Your task to perform on an android device: turn off sleep mode Image 0: 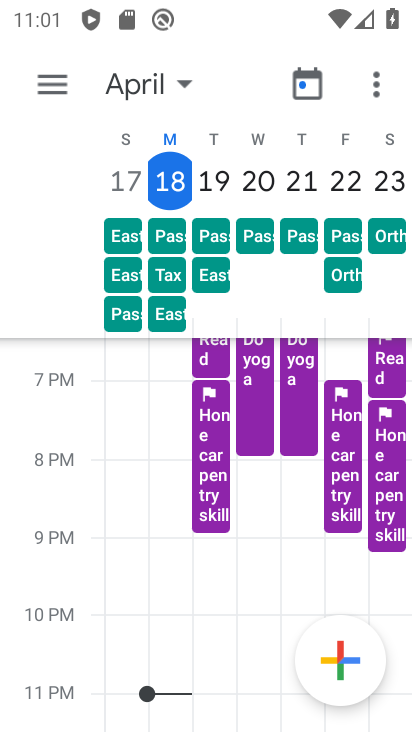
Step 0: press back button
Your task to perform on an android device: turn off sleep mode Image 1: 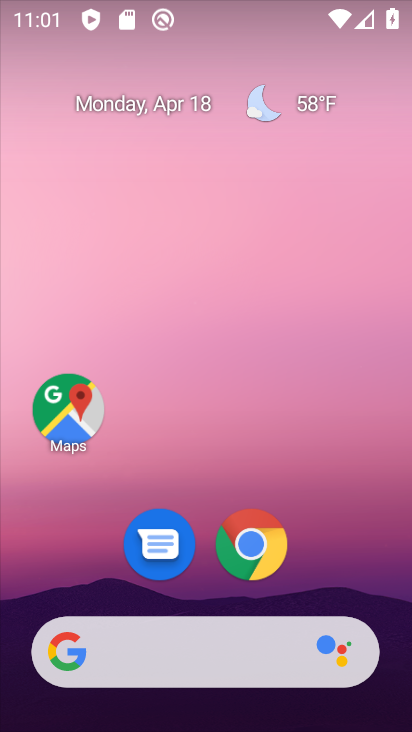
Step 1: drag from (209, 491) to (289, 87)
Your task to perform on an android device: turn off sleep mode Image 2: 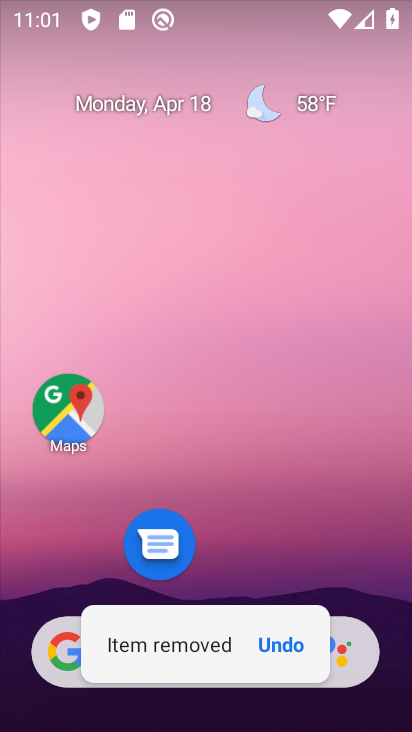
Step 2: drag from (325, 534) to (318, 58)
Your task to perform on an android device: turn off sleep mode Image 3: 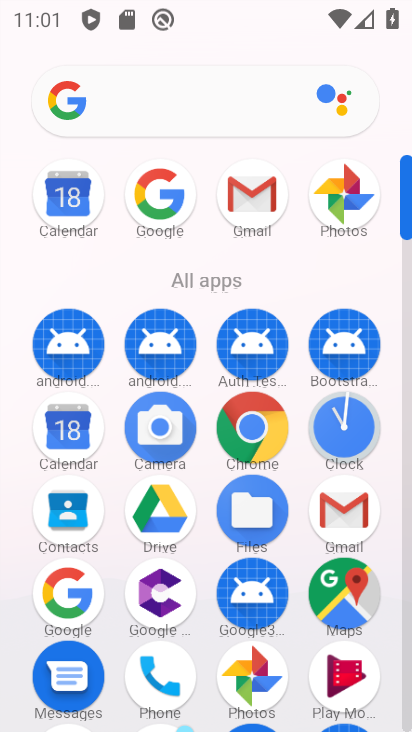
Step 3: drag from (304, 465) to (291, 273)
Your task to perform on an android device: turn off sleep mode Image 4: 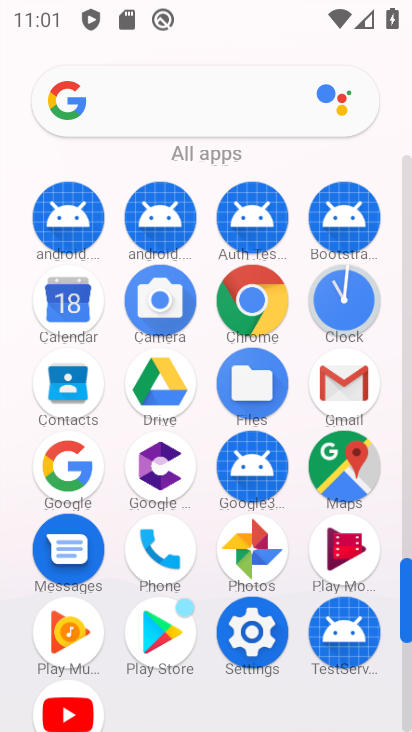
Step 4: click (252, 636)
Your task to perform on an android device: turn off sleep mode Image 5: 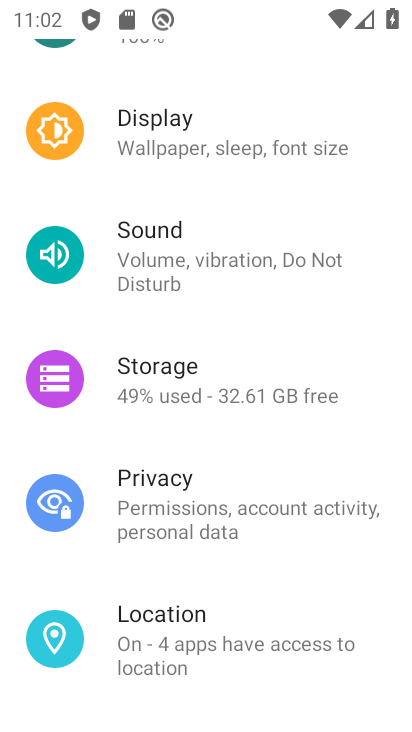
Step 5: click (245, 158)
Your task to perform on an android device: turn off sleep mode Image 6: 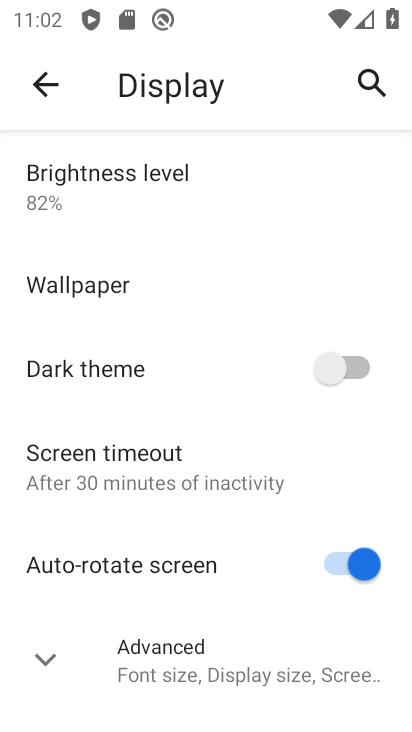
Step 6: drag from (169, 416) to (176, 308)
Your task to perform on an android device: turn off sleep mode Image 7: 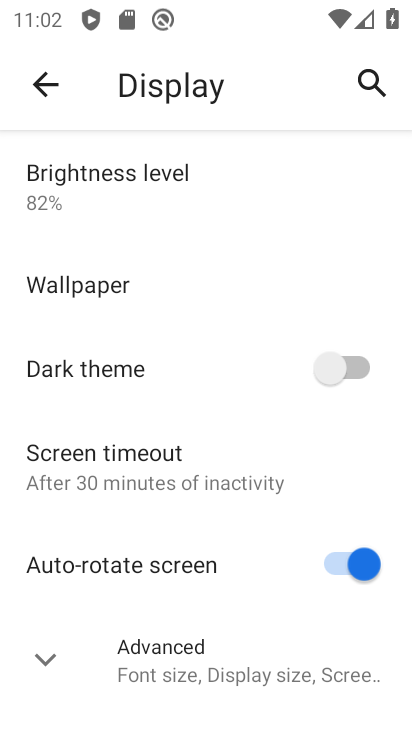
Step 7: drag from (247, 598) to (275, 419)
Your task to perform on an android device: turn off sleep mode Image 8: 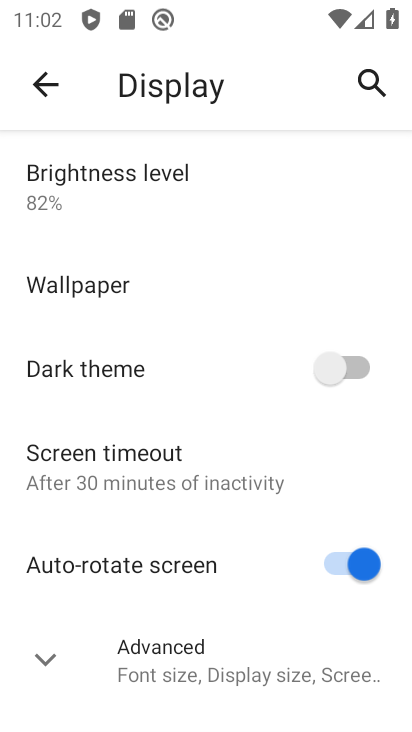
Step 8: click (231, 657)
Your task to perform on an android device: turn off sleep mode Image 9: 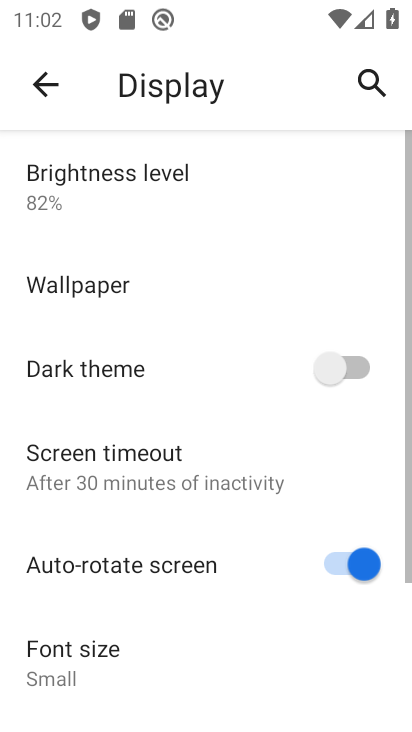
Step 9: task complete